Your task to perform on an android device: Search for "razer deathadder" on costco.com, select the first entry, add it to the cart, then select checkout. Image 0: 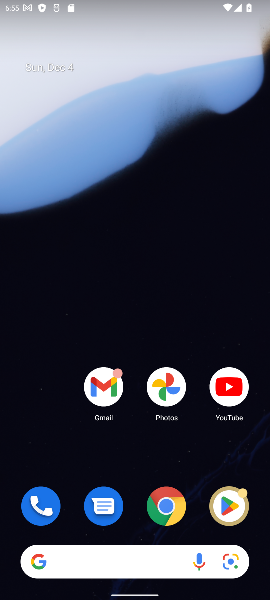
Step 0: click (151, 508)
Your task to perform on an android device: Search for "razer deathadder" on costco.com, select the first entry, add it to the cart, then select checkout. Image 1: 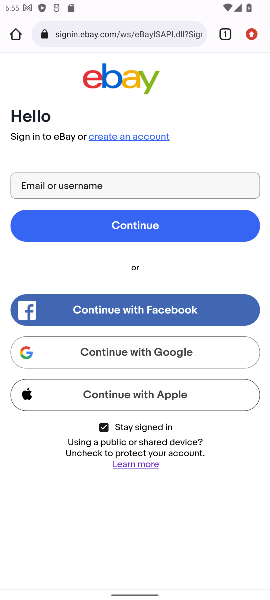
Step 1: click (69, 29)
Your task to perform on an android device: Search for "razer deathadder" on costco.com, select the first entry, add it to the cart, then select checkout. Image 2: 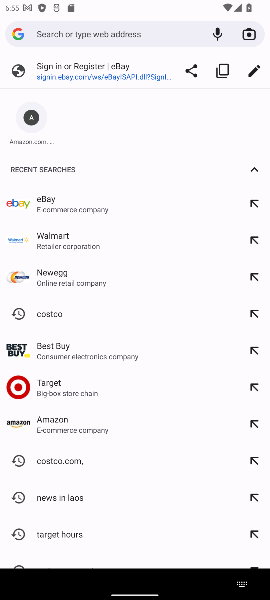
Step 2: click (52, 317)
Your task to perform on an android device: Search for "razer deathadder" on costco.com, select the first entry, add it to the cart, then select checkout. Image 3: 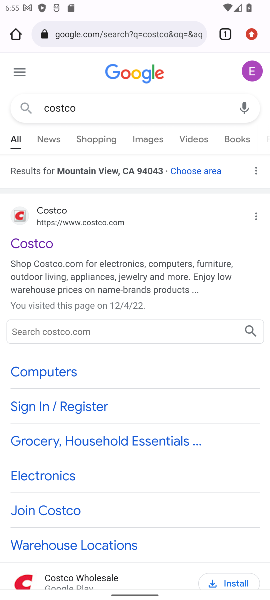
Step 3: click (33, 245)
Your task to perform on an android device: Search for "razer deathadder" on costco.com, select the first entry, add it to the cart, then select checkout. Image 4: 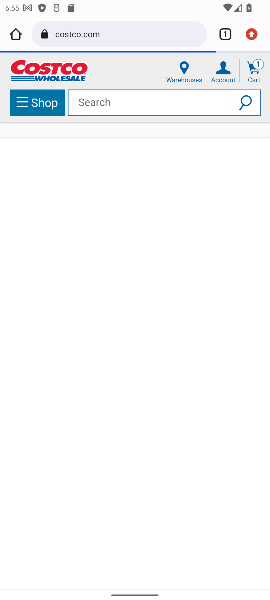
Step 4: click (178, 98)
Your task to perform on an android device: Search for "razer deathadder" on costco.com, select the first entry, add it to the cart, then select checkout. Image 5: 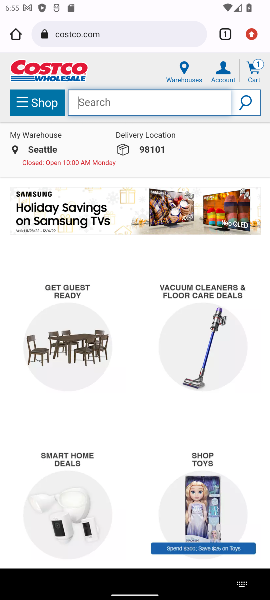
Step 5: type "razer deathadder"
Your task to perform on an android device: Search for "razer deathadder" on costco.com, select the first entry, add it to the cart, then select checkout. Image 6: 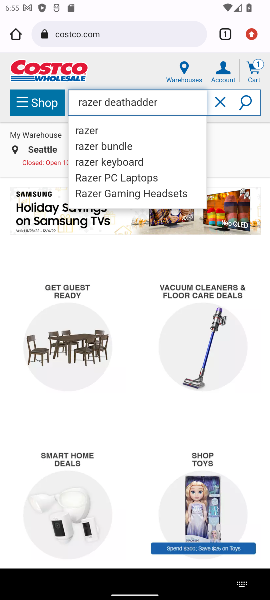
Step 6: click (245, 103)
Your task to perform on an android device: Search for "razer deathadder" on costco.com, select the first entry, add it to the cart, then select checkout. Image 7: 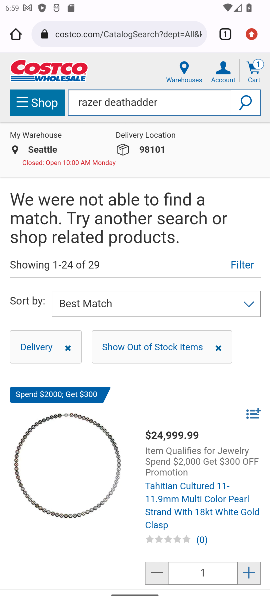
Step 7: task complete